Your task to perform on an android device: Go to network settings Image 0: 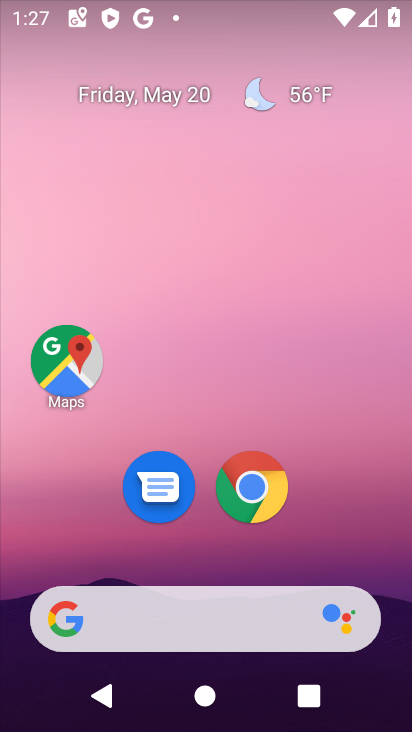
Step 0: drag from (209, 555) to (229, 2)
Your task to perform on an android device: Go to network settings Image 1: 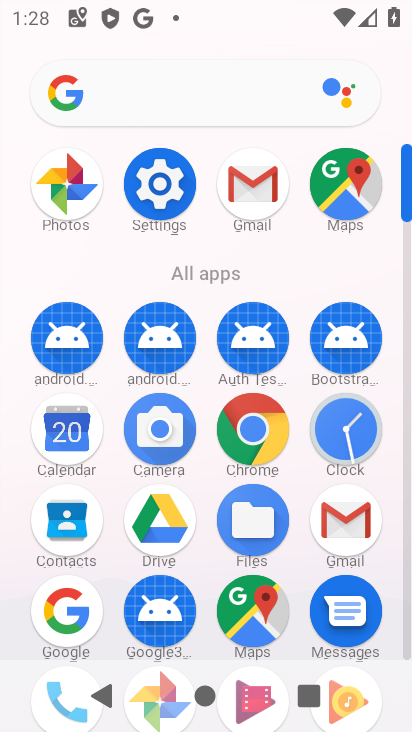
Step 1: click (155, 179)
Your task to perform on an android device: Go to network settings Image 2: 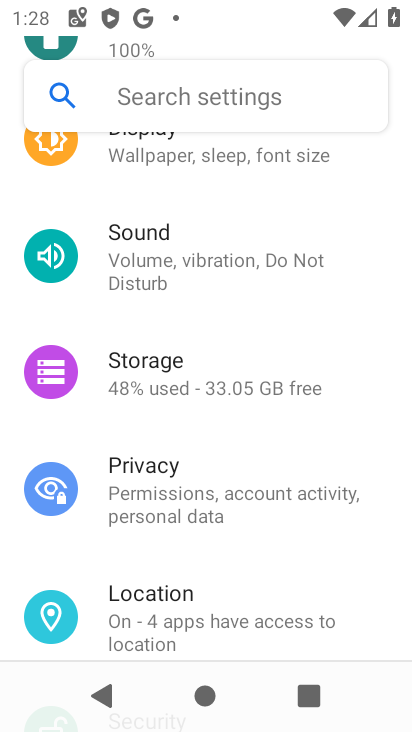
Step 2: drag from (205, 196) to (188, 597)
Your task to perform on an android device: Go to network settings Image 3: 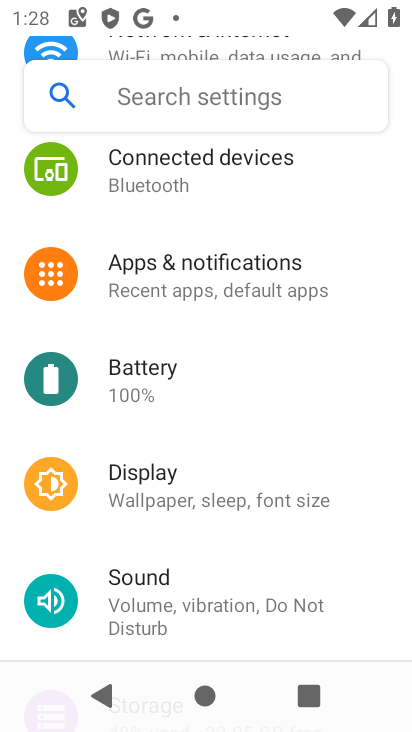
Step 3: drag from (225, 181) to (225, 584)
Your task to perform on an android device: Go to network settings Image 4: 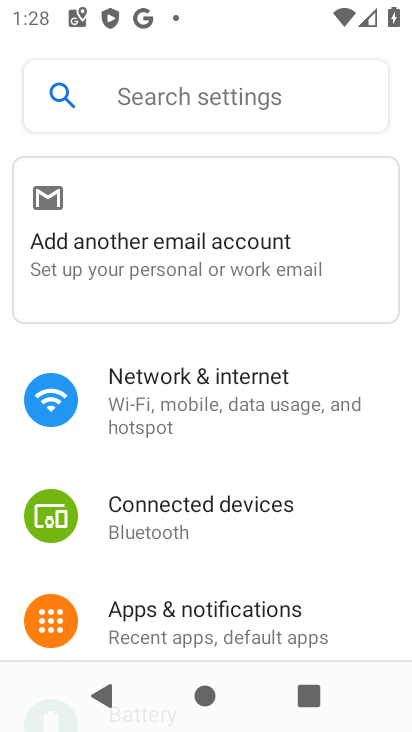
Step 4: click (213, 383)
Your task to perform on an android device: Go to network settings Image 5: 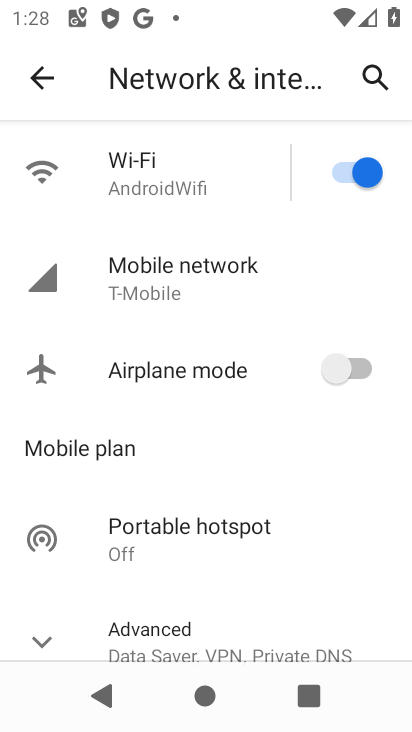
Step 5: task complete